Your task to perform on an android device: open device folders in google photos Image 0: 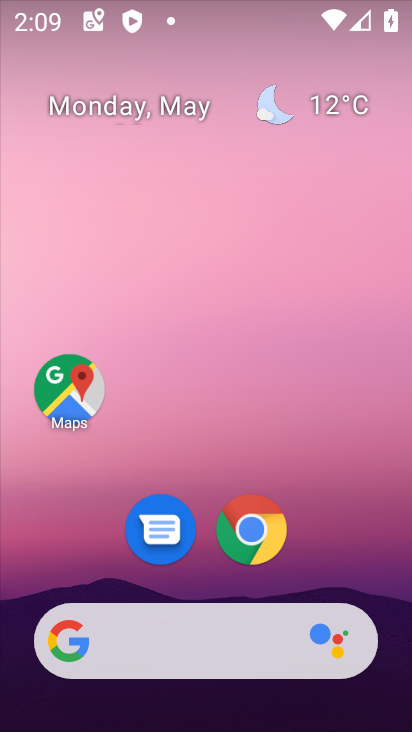
Step 0: drag from (376, 604) to (305, 88)
Your task to perform on an android device: open device folders in google photos Image 1: 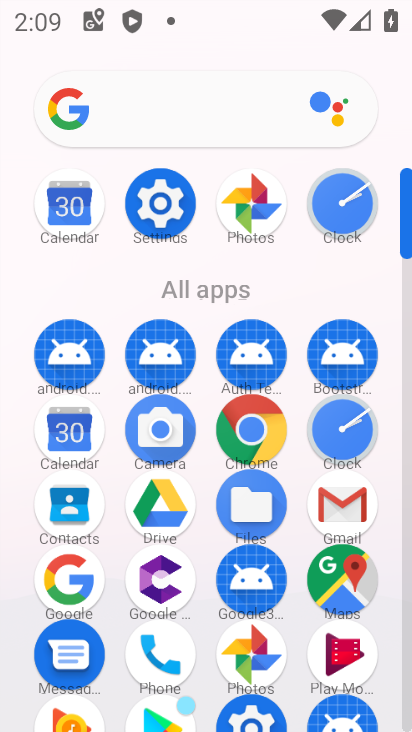
Step 1: click (405, 702)
Your task to perform on an android device: open device folders in google photos Image 2: 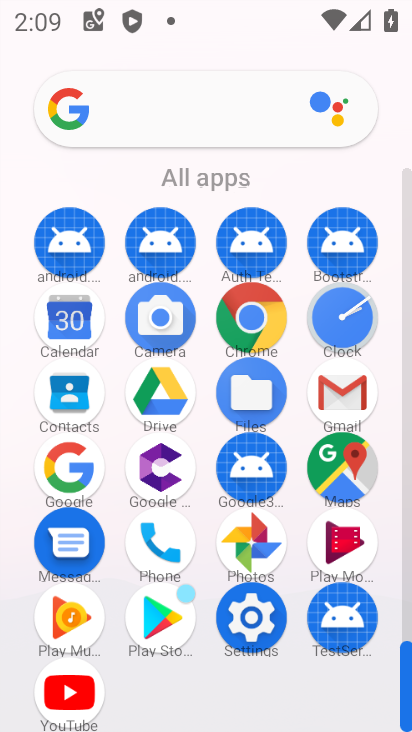
Step 2: click (252, 540)
Your task to perform on an android device: open device folders in google photos Image 3: 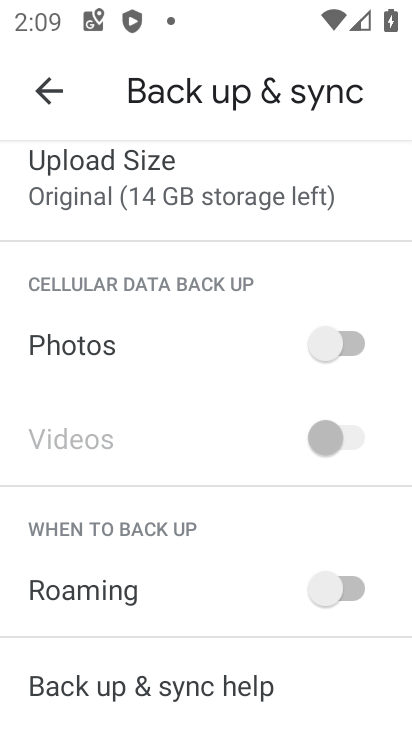
Step 3: press back button
Your task to perform on an android device: open device folders in google photos Image 4: 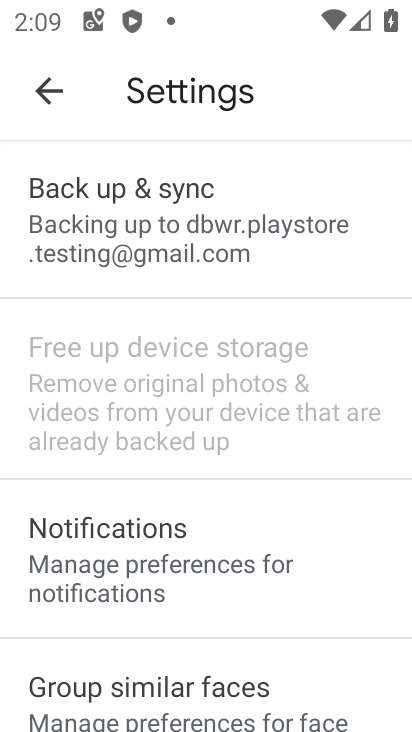
Step 4: press back button
Your task to perform on an android device: open device folders in google photos Image 5: 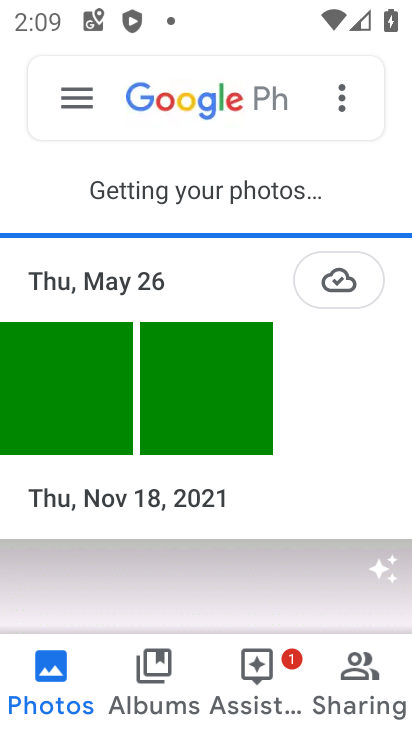
Step 5: click (74, 99)
Your task to perform on an android device: open device folders in google photos Image 6: 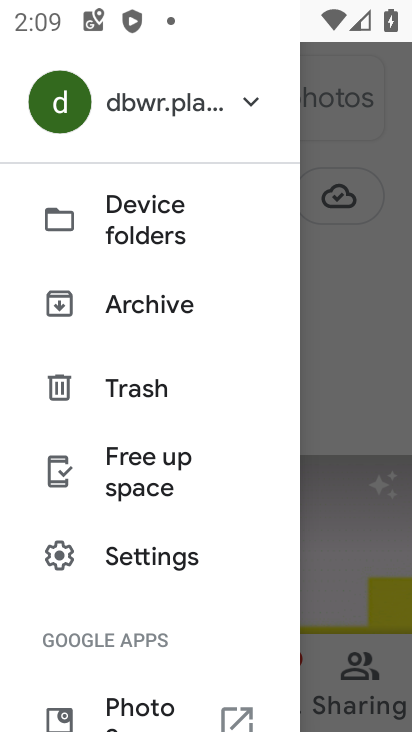
Step 6: click (136, 212)
Your task to perform on an android device: open device folders in google photos Image 7: 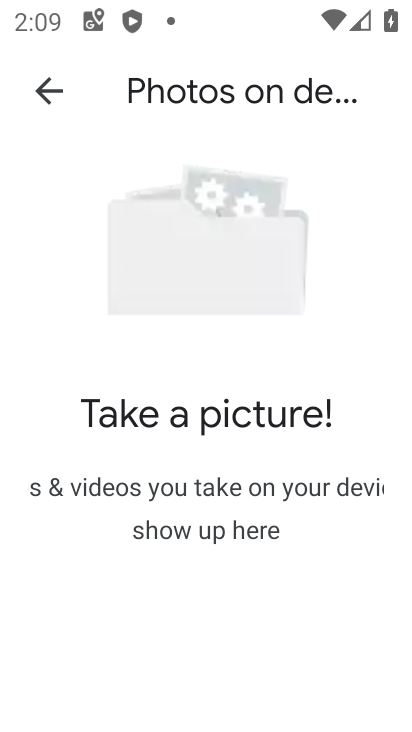
Step 7: task complete